Your task to perform on an android device: Open CNN.com Image 0: 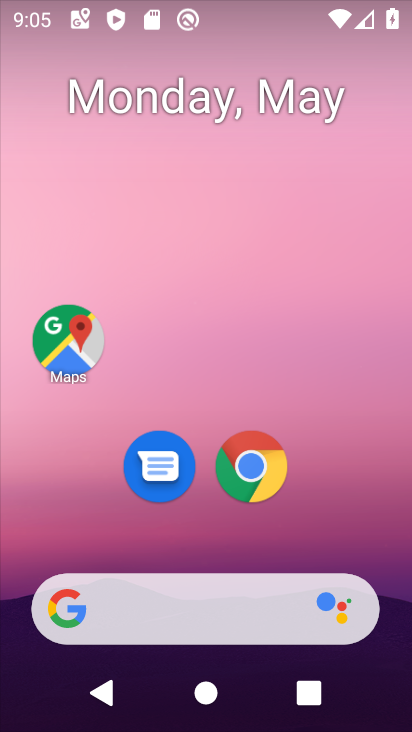
Step 0: drag from (270, 645) to (299, 198)
Your task to perform on an android device: Open CNN.com Image 1: 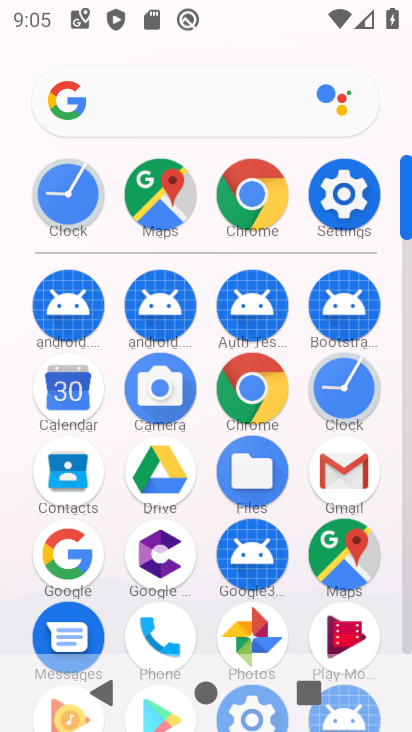
Step 1: click (251, 205)
Your task to perform on an android device: Open CNN.com Image 2: 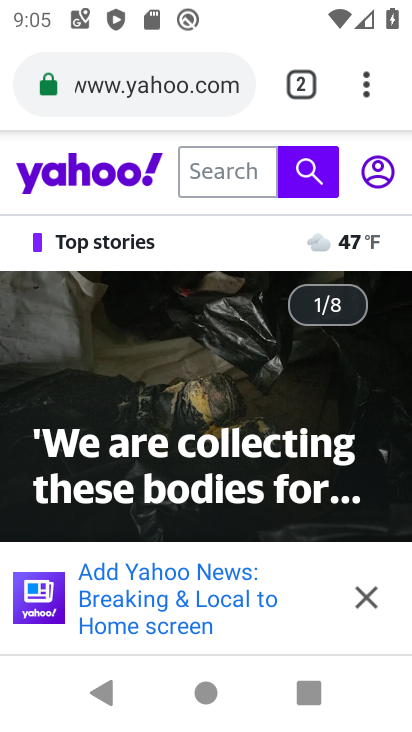
Step 2: click (168, 108)
Your task to perform on an android device: Open CNN.com Image 3: 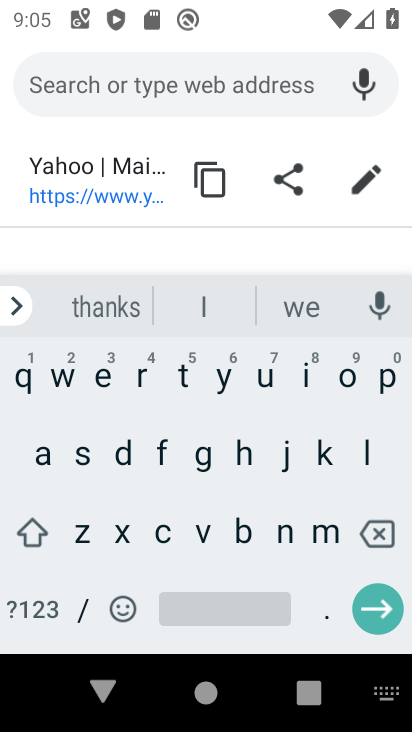
Step 3: click (155, 535)
Your task to perform on an android device: Open CNN.com Image 4: 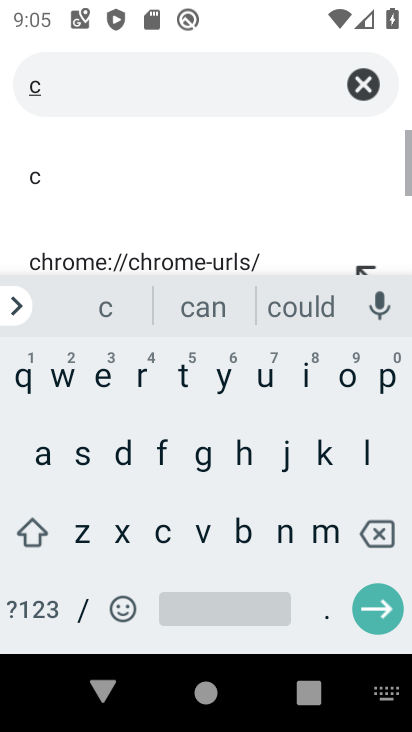
Step 4: click (286, 531)
Your task to perform on an android device: Open CNN.com Image 5: 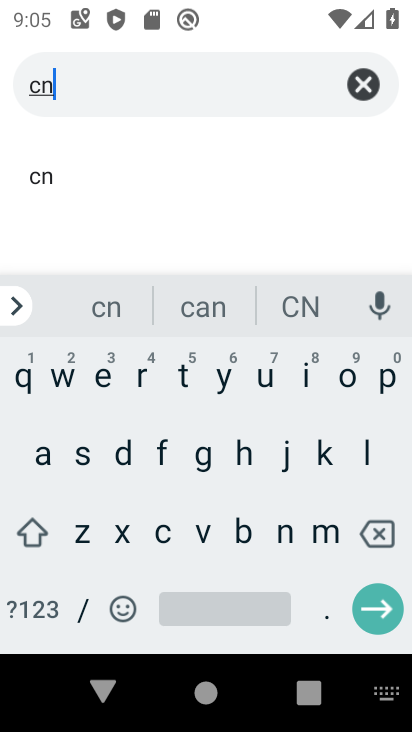
Step 5: click (286, 531)
Your task to perform on an android device: Open CNN.com Image 6: 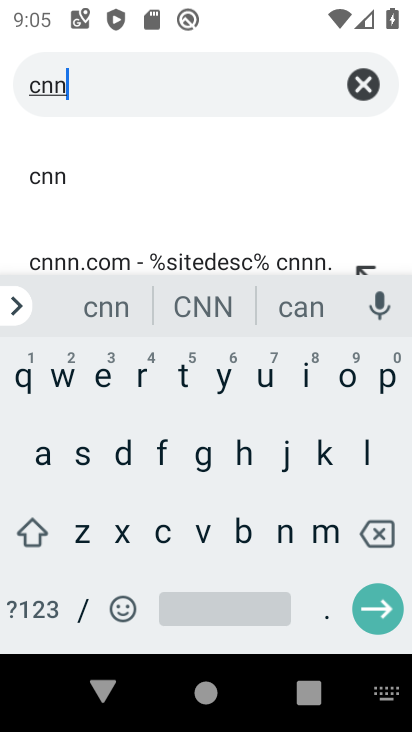
Step 6: click (183, 252)
Your task to perform on an android device: Open CNN.com Image 7: 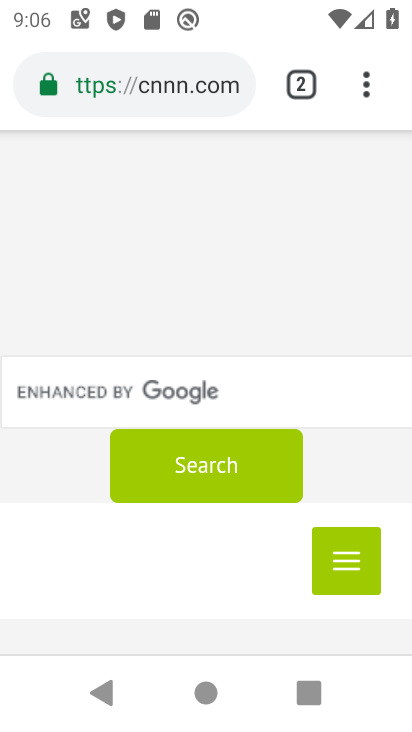
Step 7: task complete